Your task to perform on an android device: refresh tabs in the chrome app Image 0: 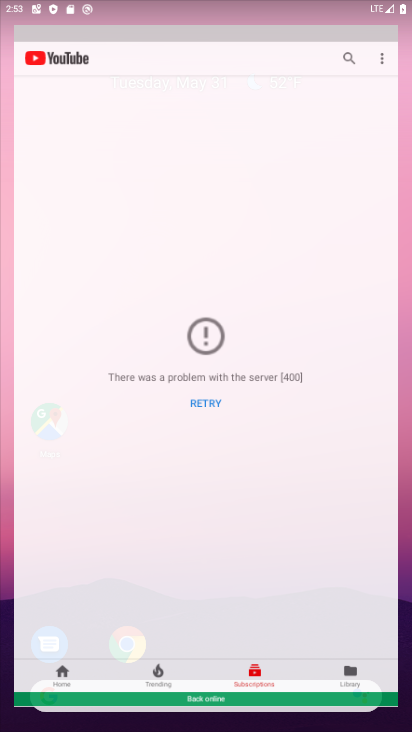
Step 0: drag from (137, 726) to (156, 118)
Your task to perform on an android device: refresh tabs in the chrome app Image 1: 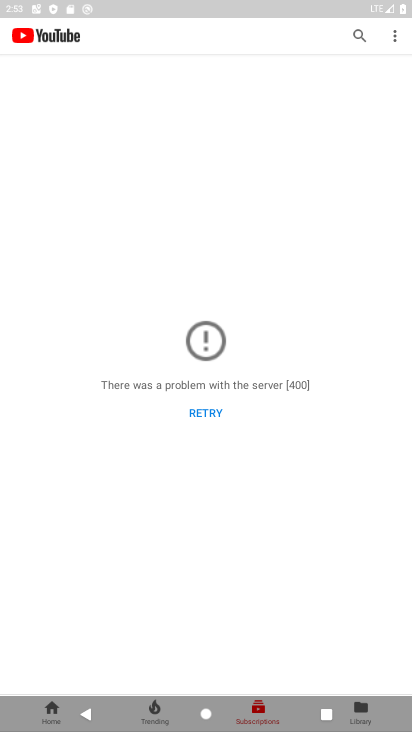
Step 1: press home button
Your task to perform on an android device: refresh tabs in the chrome app Image 2: 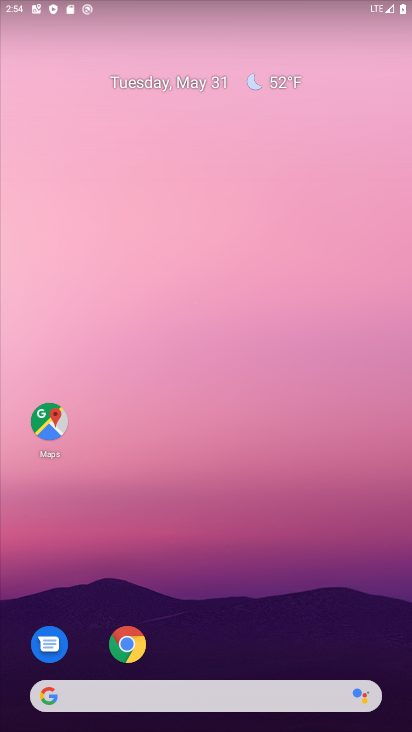
Step 2: click (139, 651)
Your task to perform on an android device: refresh tabs in the chrome app Image 3: 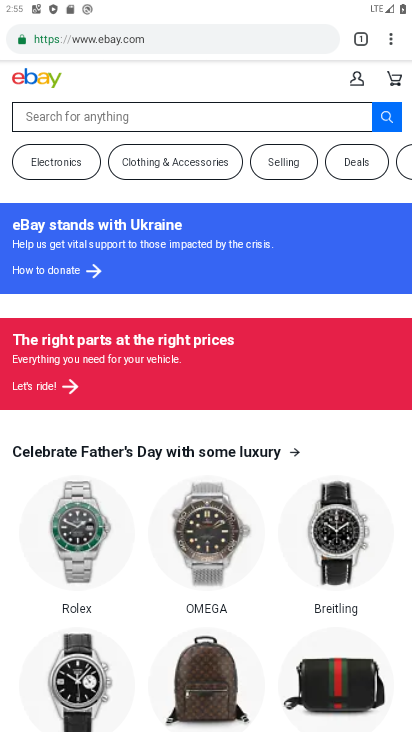
Step 3: click (394, 27)
Your task to perform on an android device: refresh tabs in the chrome app Image 4: 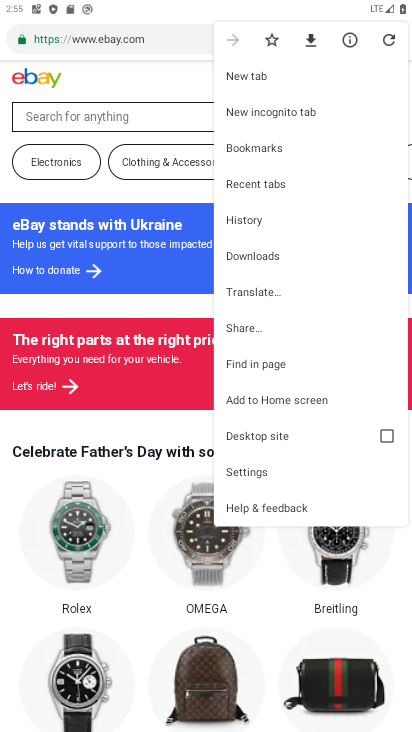
Step 4: click (393, 37)
Your task to perform on an android device: refresh tabs in the chrome app Image 5: 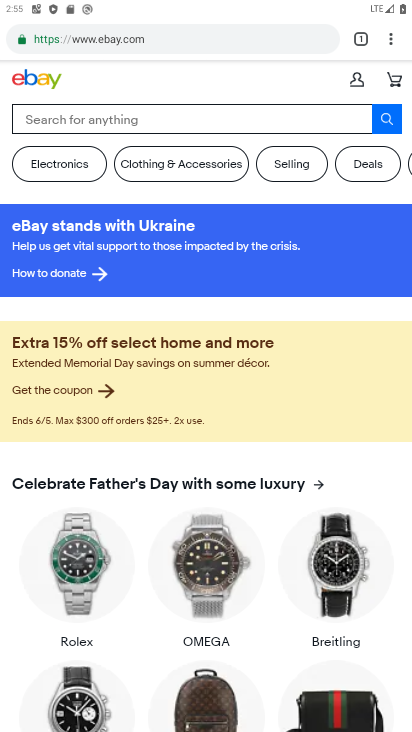
Step 5: task complete